Your task to perform on an android device: Open maps Image 0: 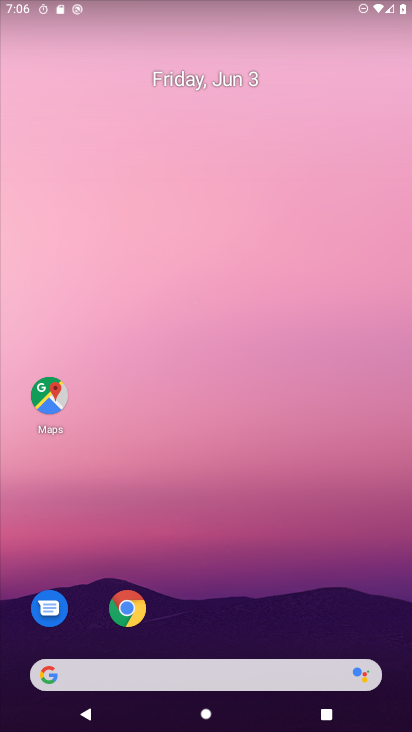
Step 0: click (41, 399)
Your task to perform on an android device: Open maps Image 1: 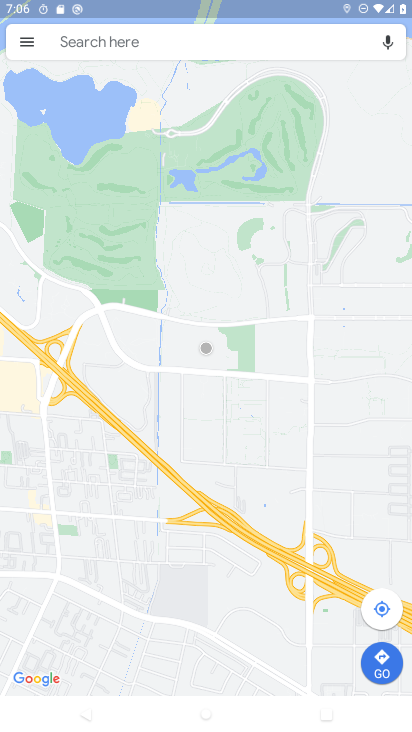
Step 1: task complete